Your task to perform on an android device: turn off sleep mode Image 0: 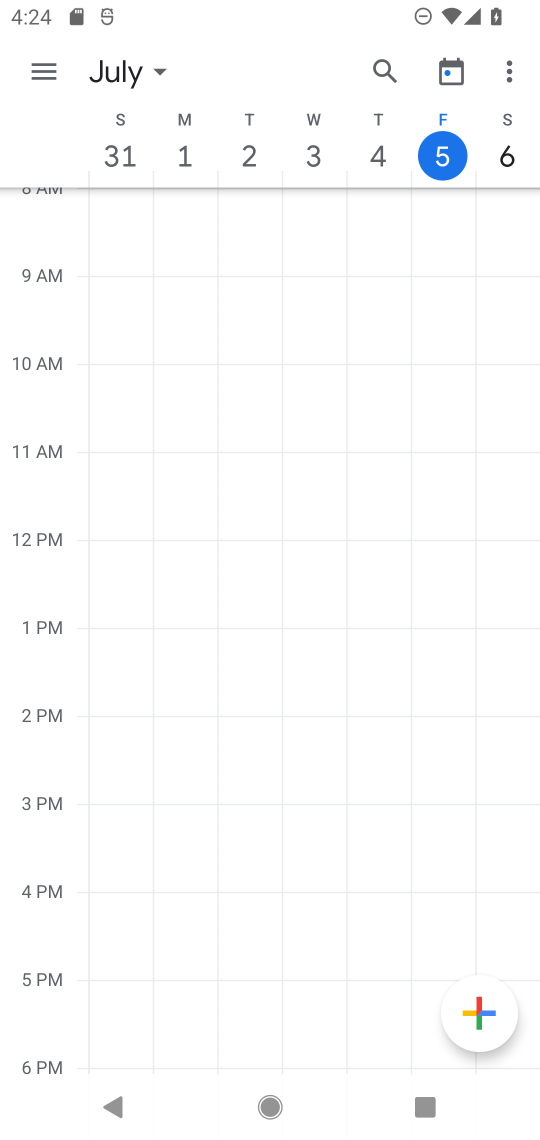
Step 0: press home button
Your task to perform on an android device: turn off sleep mode Image 1: 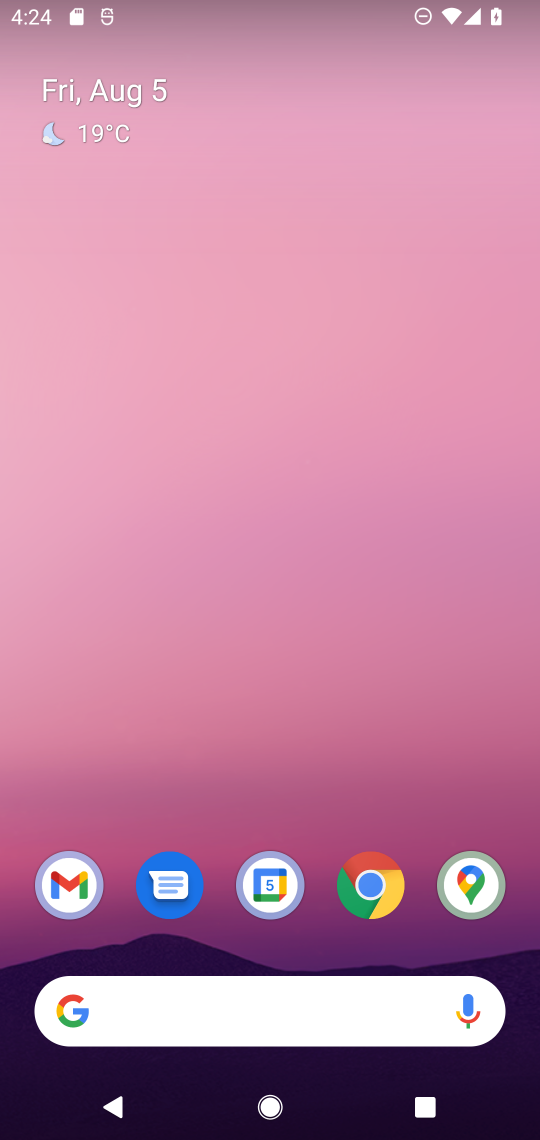
Step 1: drag from (296, 938) to (260, 181)
Your task to perform on an android device: turn off sleep mode Image 2: 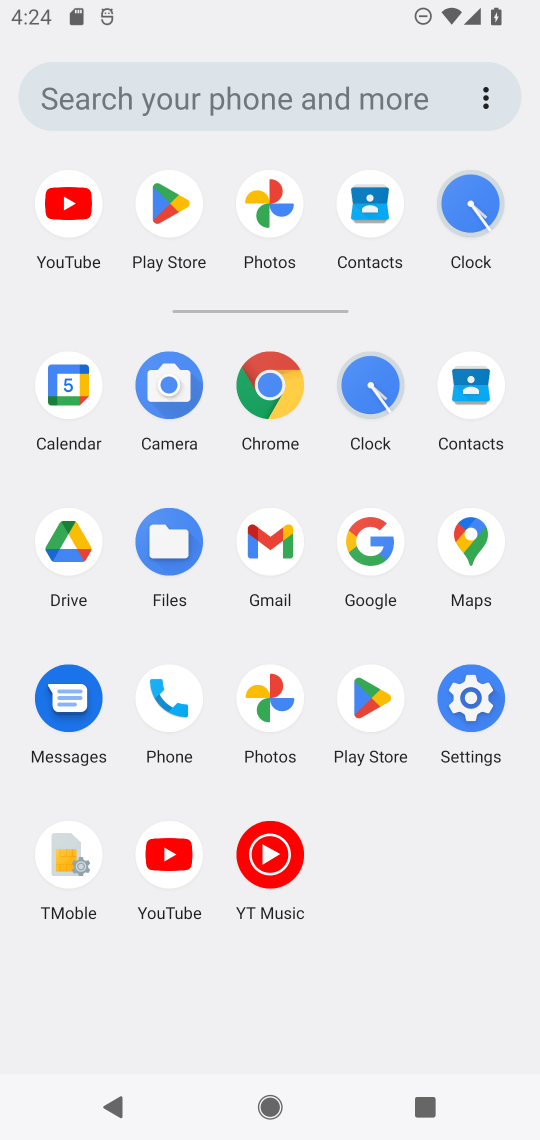
Step 2: click (480, 693)
Your task to perform on an android device: turn off sleep mode Image 3: 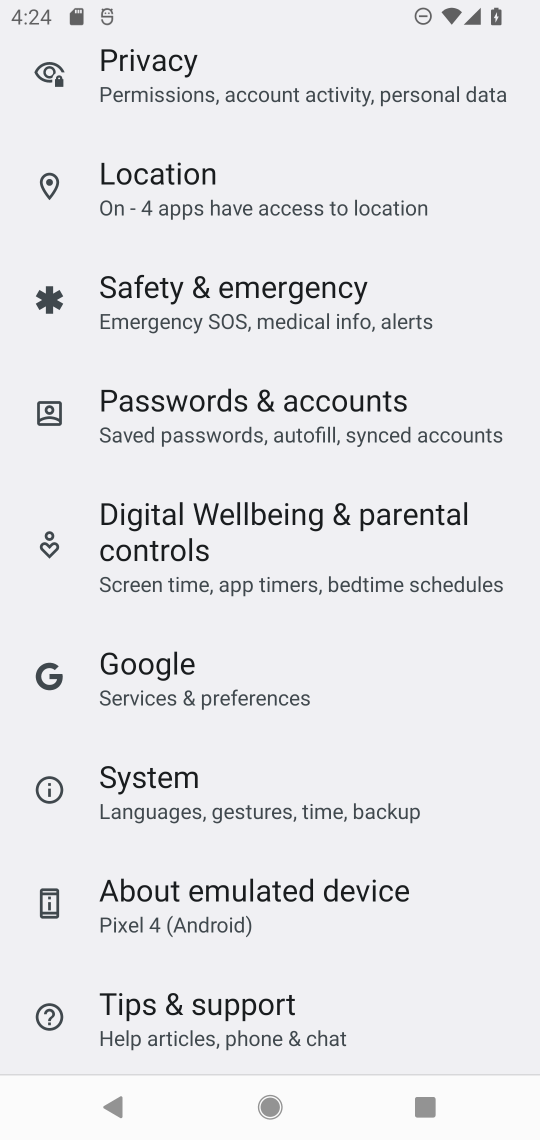
Step 3: task complete